Your task to perform on an android device: What's on my calendar tomorrow? Image 0: 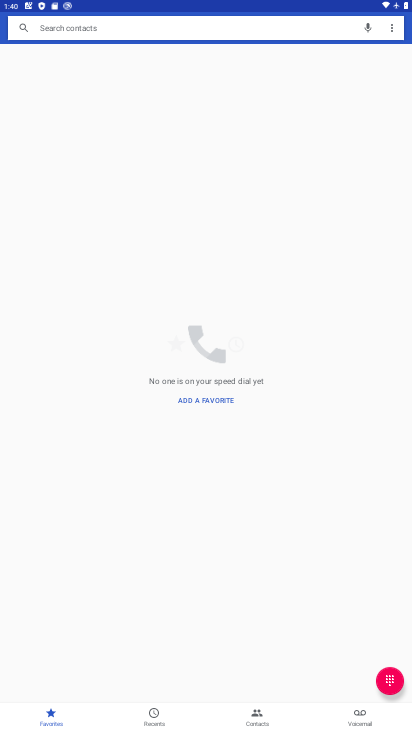
Step 0: press home button
Your task to perform on an android device: What's on my calendar tomorrow? Image 1: 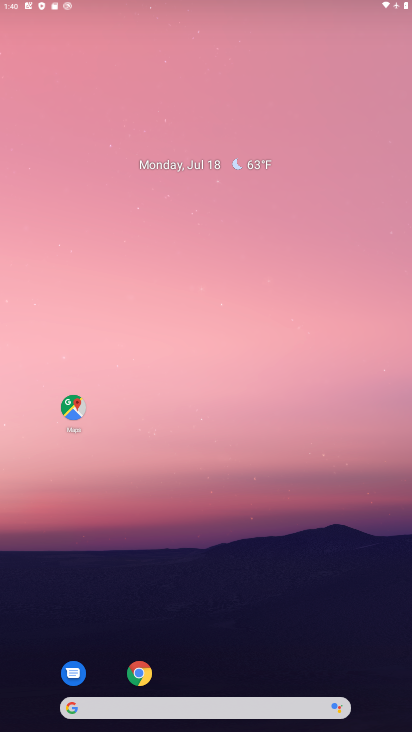
Step 1: drag from (233, 614) to (269, 210)
Your task to perform on an android device: What's on my calendar tomorrow? Image 2: 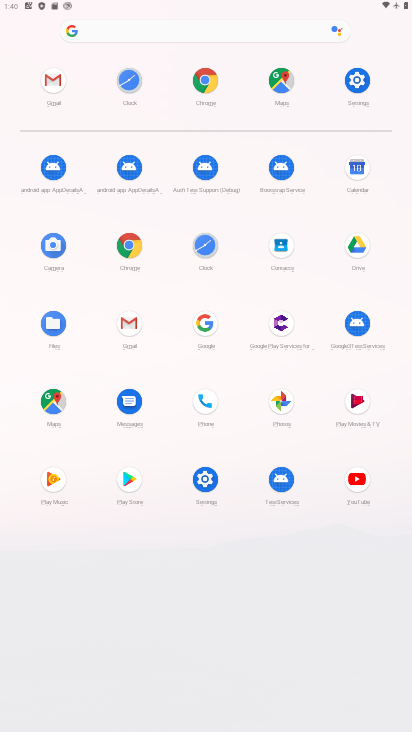
Step 2: click (348, 163)
Your task to perform on an android device: What's on my calendar tomorrow? Image 3: 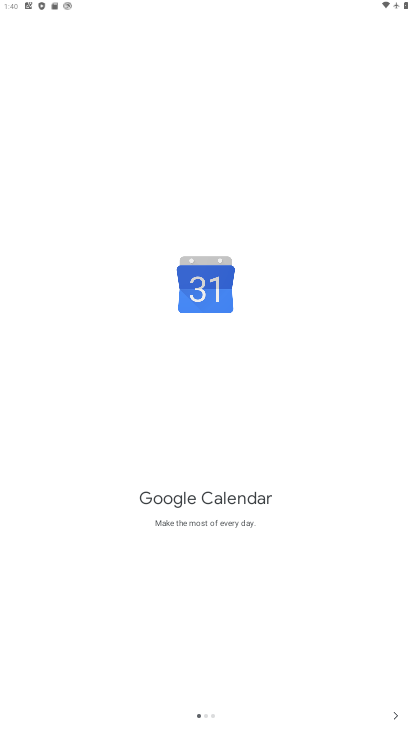
Step 3: click (387, 713)
Your task to perform on an android device: What's on my calendar tomorrow? Image 4: 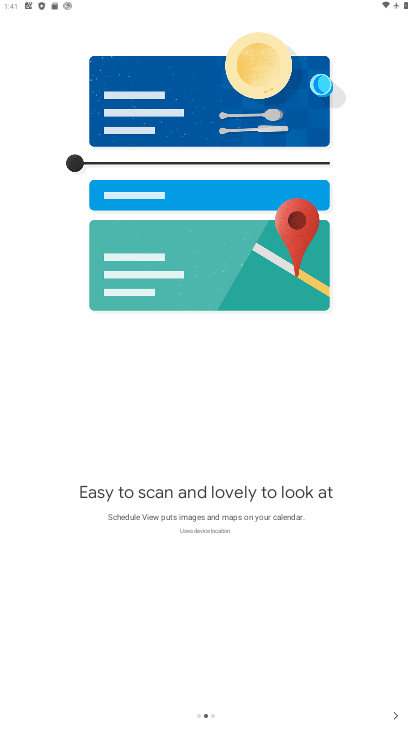
Step 4: click (384, 708)
Your task to perform on an android device: What's on my calendar tomorrow? Image 5: 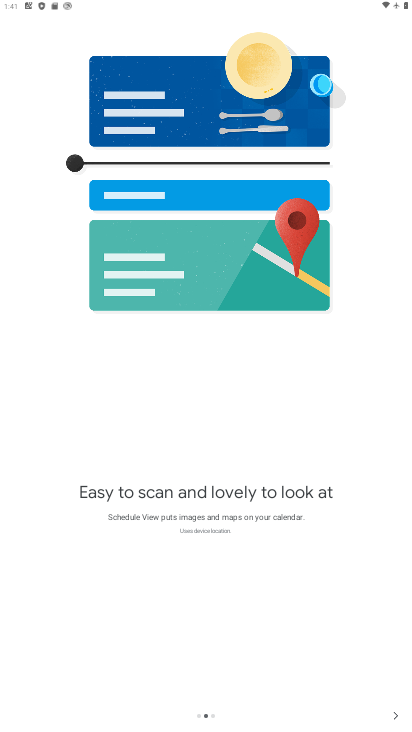
Step 5: click (398, 726)
Your task to perform on an android device: What's on my calendar tomorrow? Image 6: 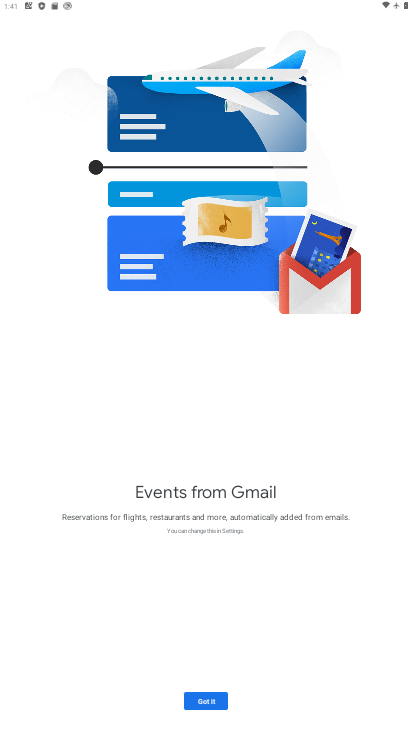
Step 6: click (191, 692)
Your task to perform on an android device: What's on my calendar tomorrow? Image 7: 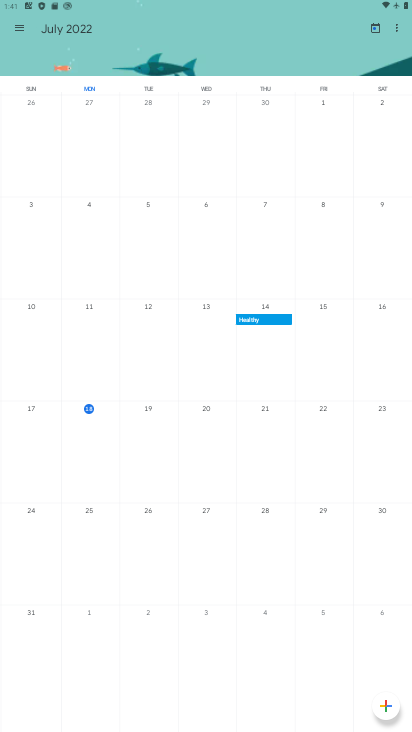
Step 7: click (156, 415)
Your task to perform on an android device: What's on my calendar tomorrow? Image 8: 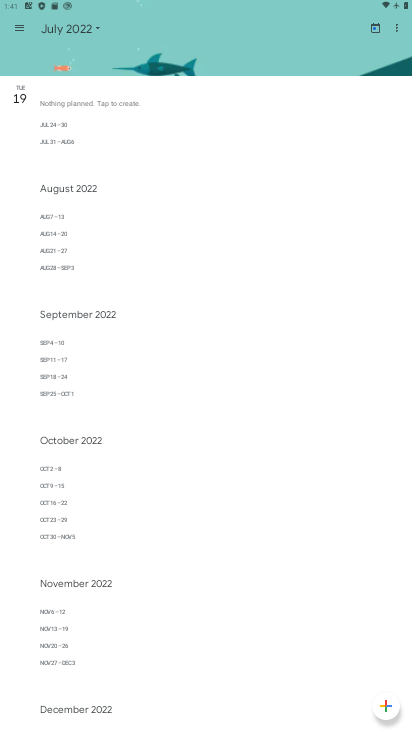
Step 8: task complete